Your task to perform on an android device: turn off priority inbox in the gmail app Image 0: 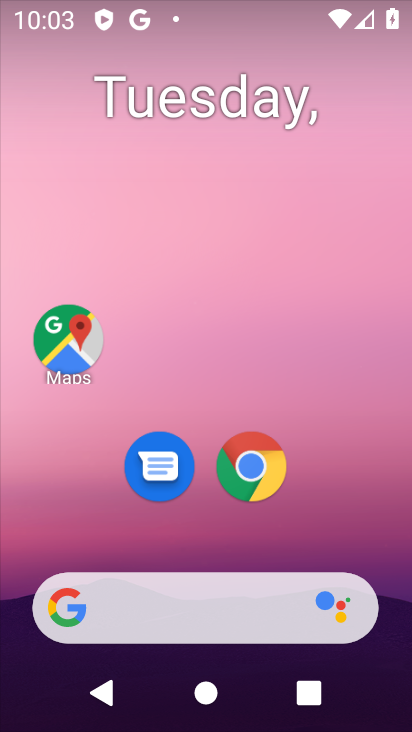
Step 0: drag from (301, 402) to (274, 149)
Your task to perform on an android device: turn off priority inbox in the gmail app Image 1: 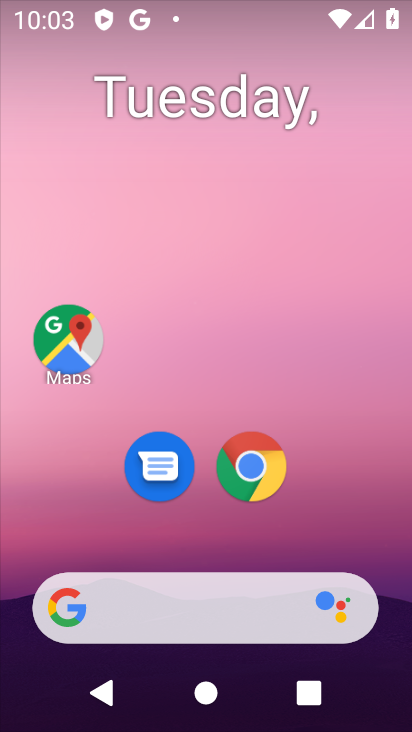
Step 1: drag from (321, 451) to (260, 104)
Your task to perform on an android device: turn off priority inbox in the gmail app Image 2: 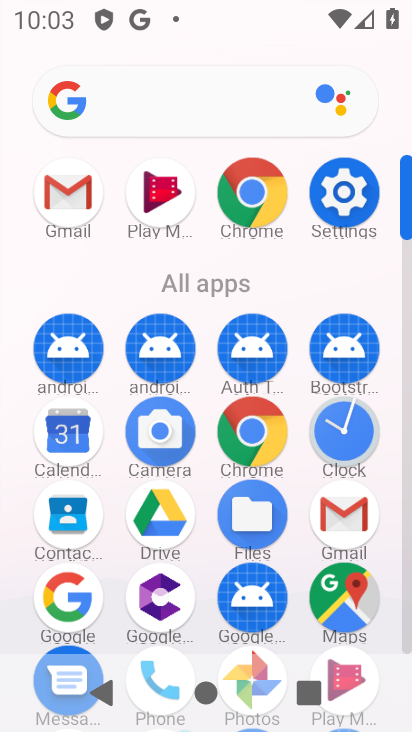
Step 2: click (81, 212)
Your task to perform on an android device: turn off priority inbox in the gmail app Image 3: 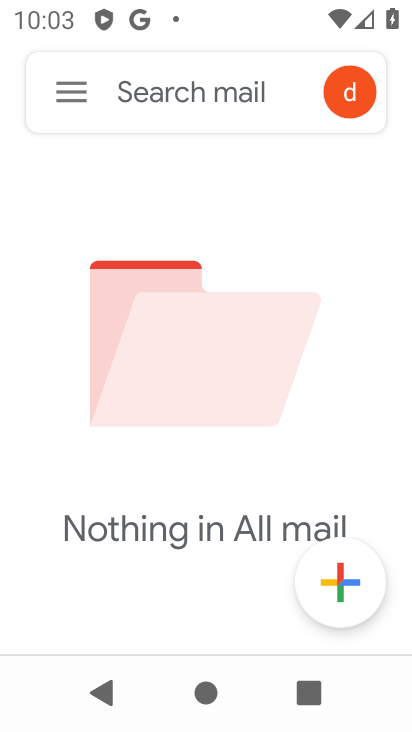
Step 3: click (64, 82)
Your task to perform on an android device: turn off priority inbox in the gmail app Image 4: 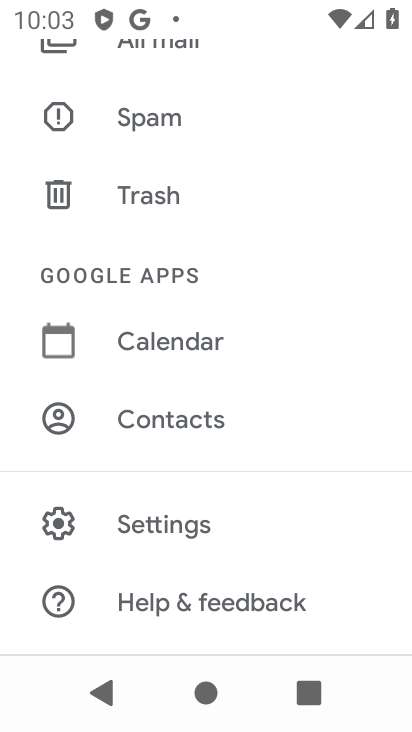
Step 4: click (159, 517)
Your task to perform on an android device: turn off priority inbox in the gmail app Image 5: 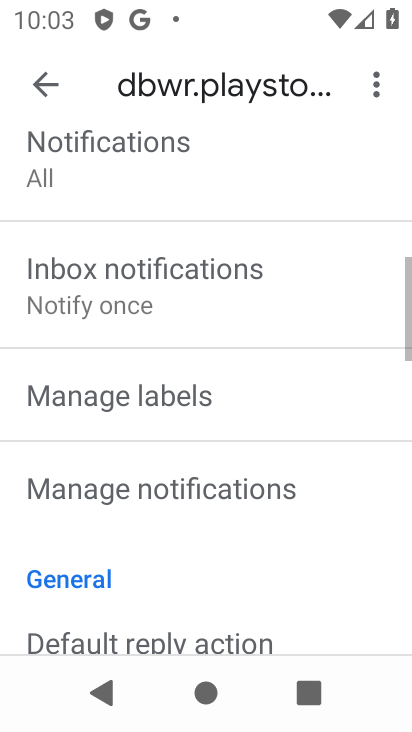
Step 5: drag from (276, 485) to (246, 172)
Your task to perform on an android device: turn off priority inbox in the gmail app Image 6: 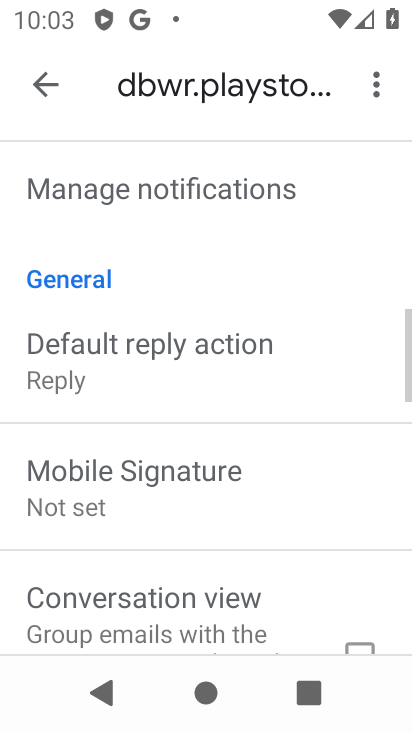
Step 6: drag from (242, 480) to (228, 148)
Your task to perform on an android device: turn off priority inbox in the gmail app Image 7: 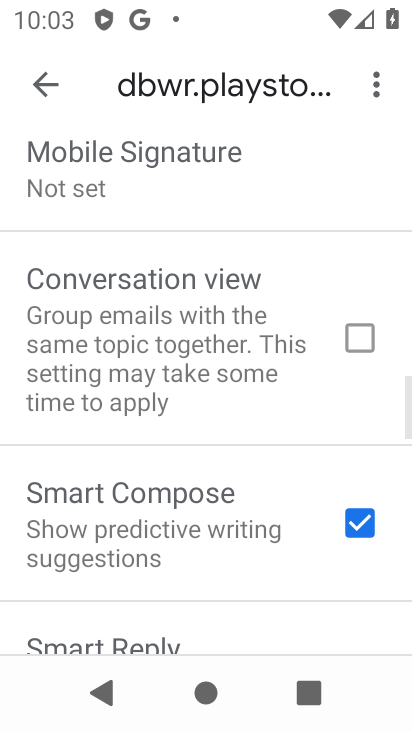
Step 7: drag from (208, 449) to (191, 155)
Your task to perform on an android device: turn off priority inbox in the gmail app Image 8: 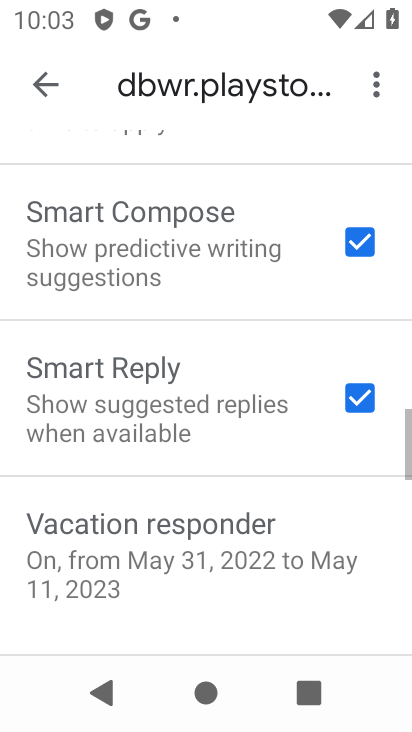
Step 8: drag from (207, 230) to (229, 660)
Your task to perform on an android device: turn off priority inbox in the gmail app Image 9: 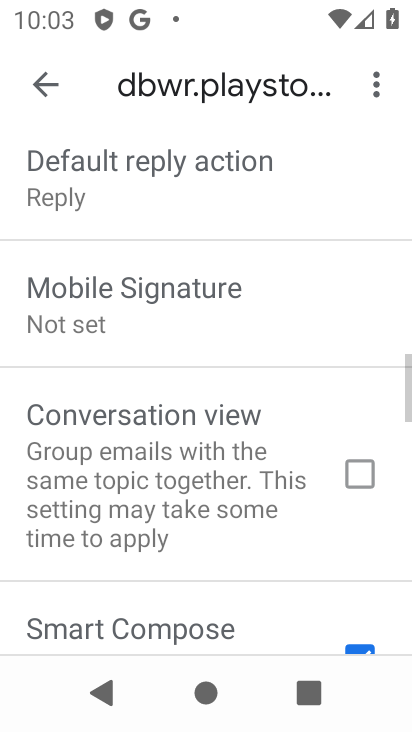
Step 9: drag from (208, 335) to (284, 676)
Your task to perform on an android device: turn off priority inbox in the gmail app Image 10: 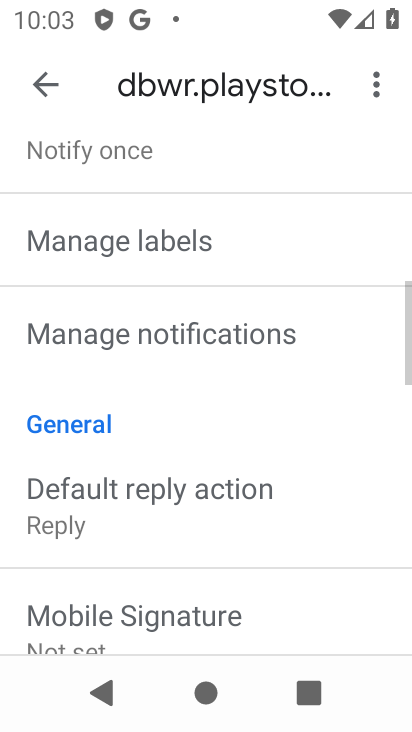
Step 10: drag from (191, 303) to (228, 620)
Your task to perform on an android device: turn off priority inbox in the gmail app Image 11: 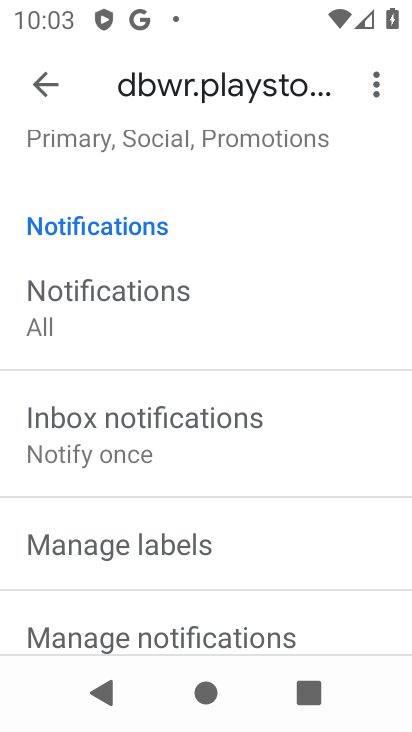
Step 11: drag from (151, 354) to (216, 665)
Your task to perform on an android device: turn off priority inbox in the gmail app Image 12: 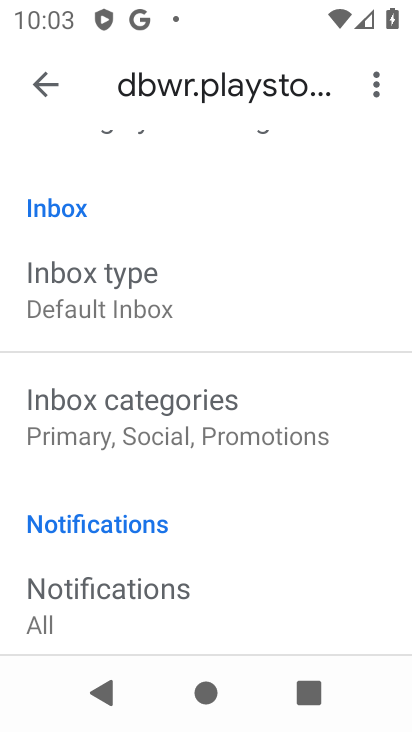
Step 12: click (100, 299)
Your task to perform on an android device: turn off priority inbox in the gmail app Image 13: 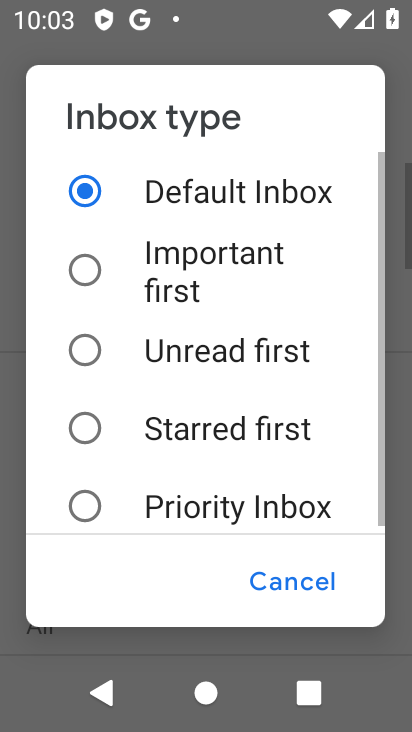
Step 13: task complete